Your task to perform on an android device: turn on improve location accuracy Image 0: 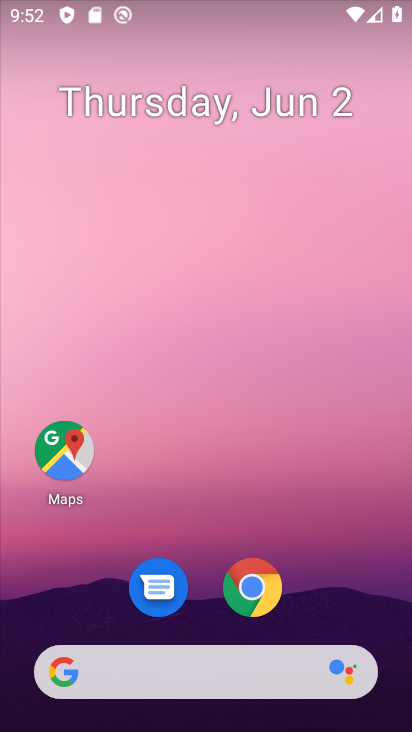
Step 0: drag from (358, 590) to (321, 61)
Your task to perform on an android device: turn on improve location accuracy Image 1: 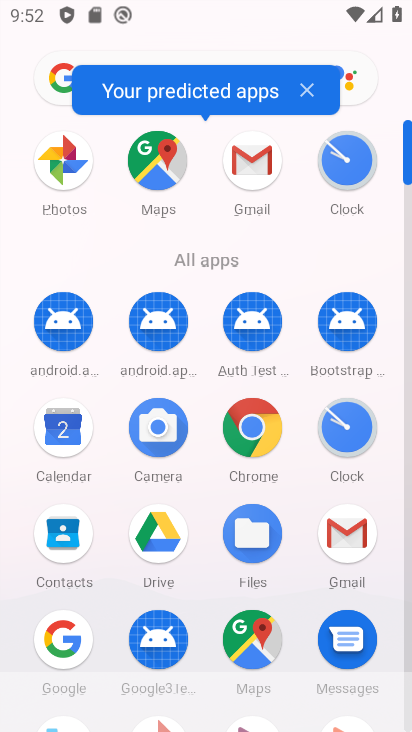
Step 1: drag from (174, 266) to (164, 20)
Your task to perform on an android device: turn on improve location accuracy Image 2: 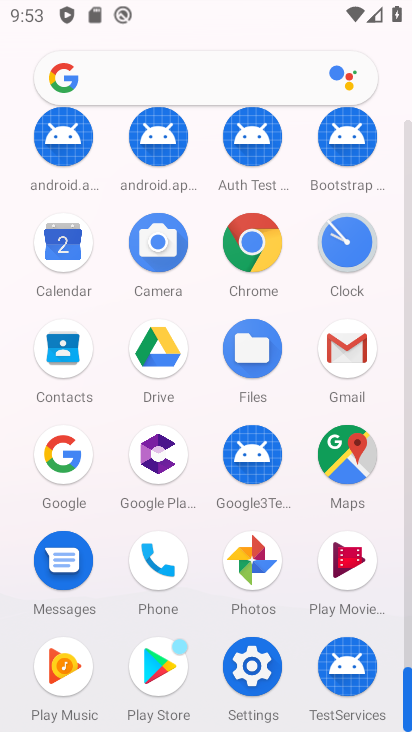
Step 2: click (262, 659)
Your task to perform on an android device: turn on improve location accuracy Image 3: 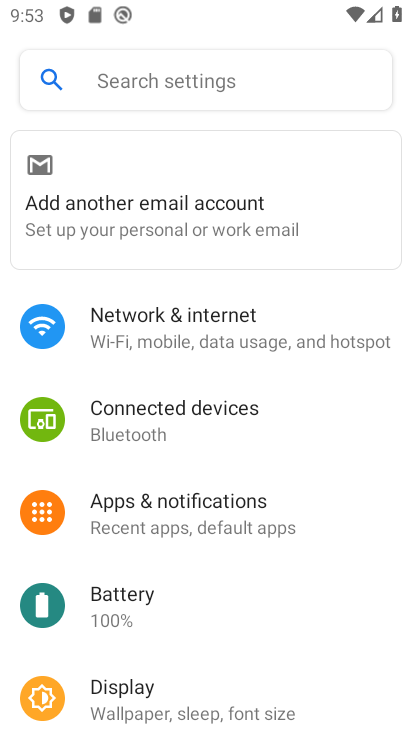
Step 3: drag from (243, 603) to (283, 369)
Your task to perform on an android device: turn on improve location accuracy Image 4: 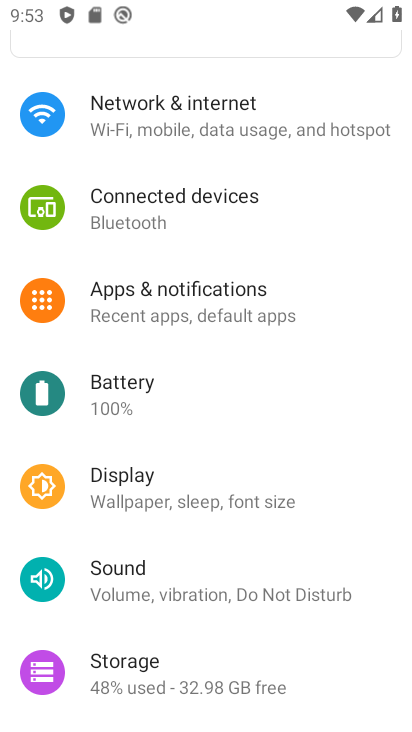
Step 4: drag from (266, 649) to (263, 435)
Your task to perform on an android device: turn on improve location accuracy Image 5: 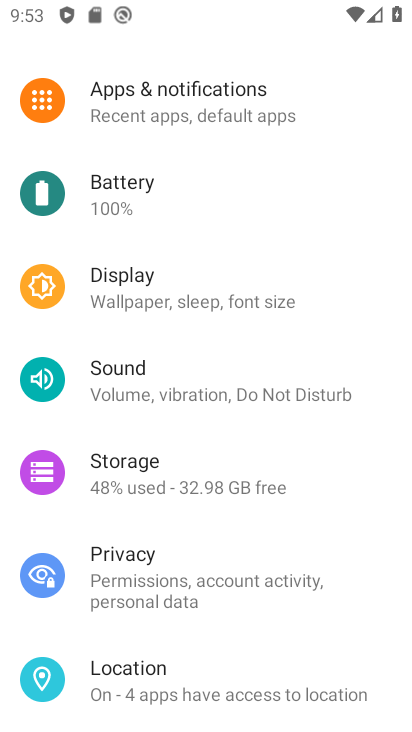
Step 5: click (207, 684)
Your task to perform on an android device: turn on improve location accuracy Image 6: 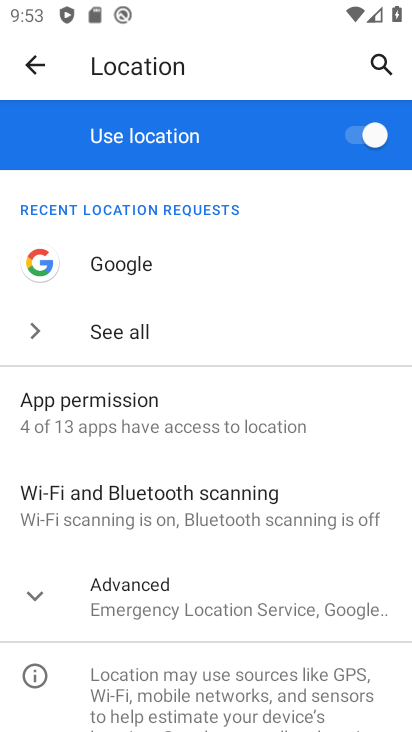
Step 6: drag from (267, 661) to (236, 448)
Your task to perform on an android device: turn on improve location accuracy Image 7: 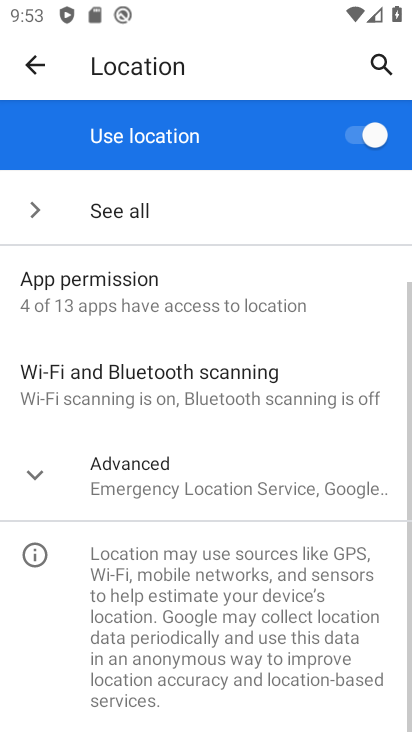
Step 7: click (223, 476)
Your task to perform on an android device: turn on improve location accuracy Image 8: 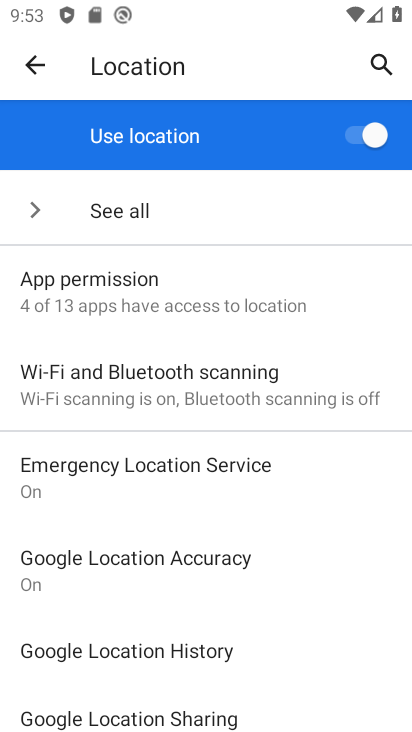
Step 8: click (209, 575)
Your task to perform on an android device: turn on improve location accuracy Image 9: 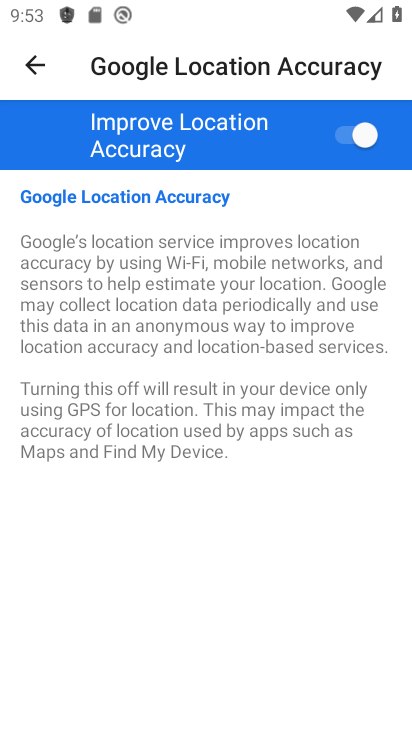
Step 9: task complete